Your task to perform on an android device: turn on translation in the chrome app Image 0: 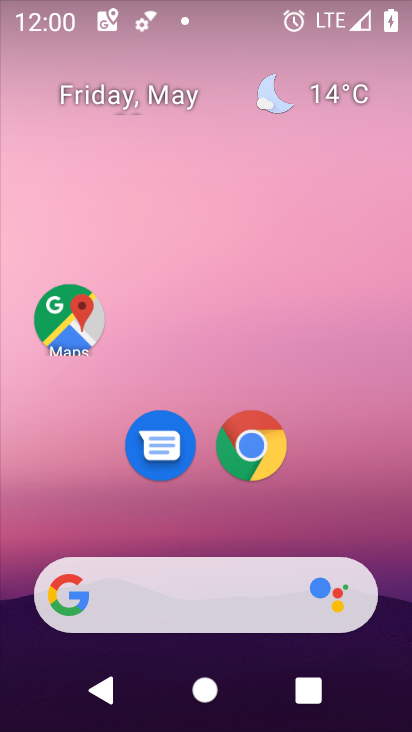
Step 0: drag from (278, 527) to (194, 153)
Your task to perform on an android device: turn on translation in the chrome app Image 1: 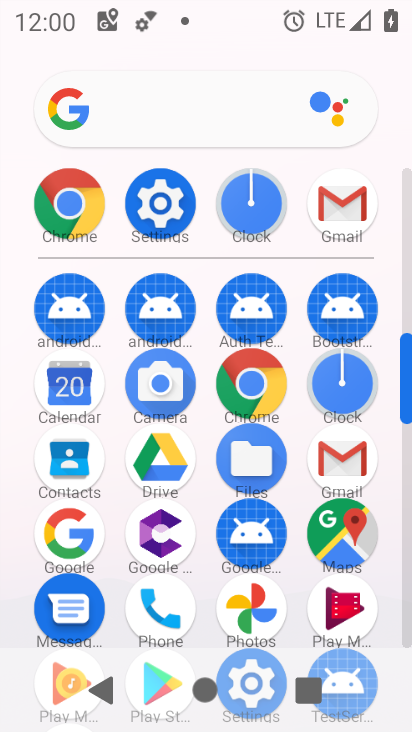
Step 1: click (247, 379)
Your task to perform on an android device: turn on translation in the chrome app Image 2: 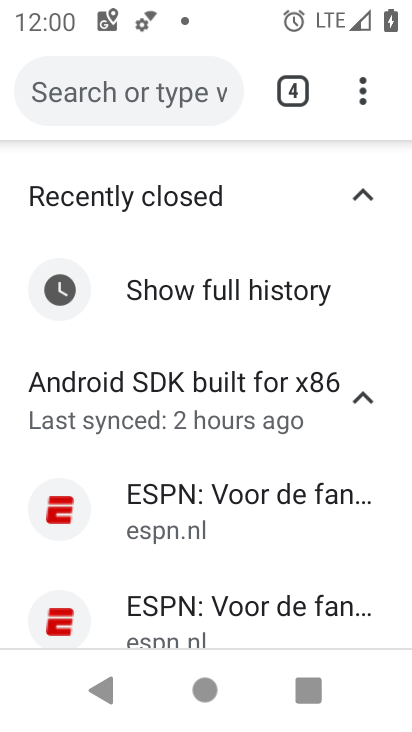
Step 2: click (363, 98)
Your task to perform on an android device: turn on translation in the chrome app Image 3: 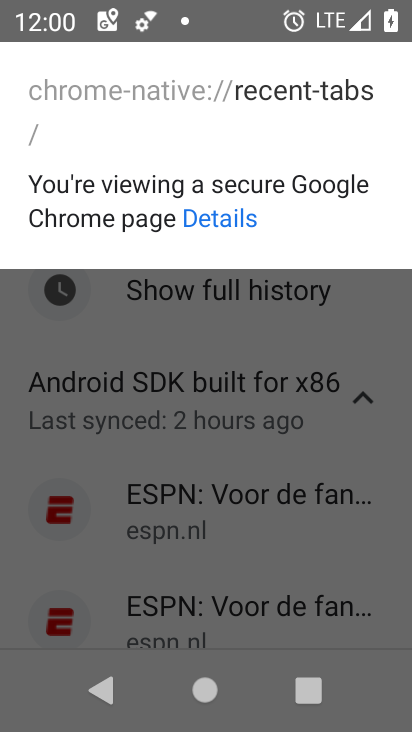
Step 3: task complete